Your task to perform on an android device: Open display settings Image 0: 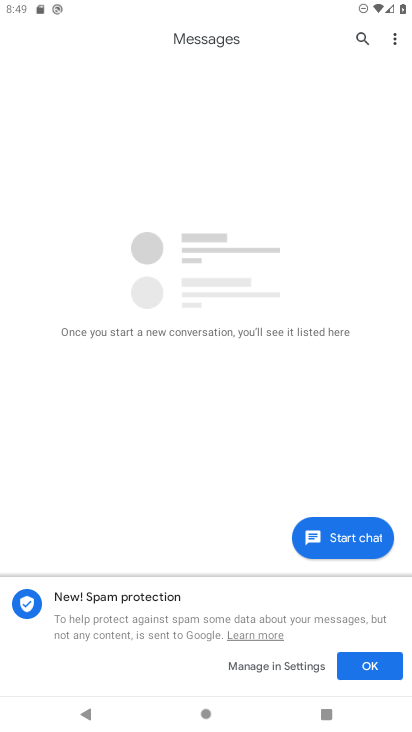
Step 0: press home button
Your task to perform on an android device: Open display settings Image 1: 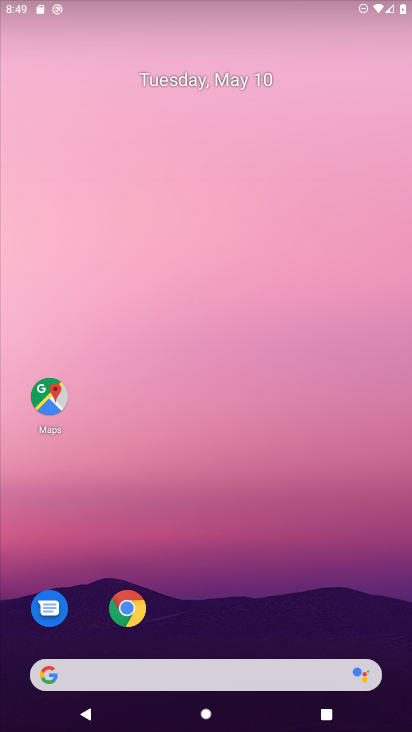
Step 1: drag from (318, 603) to (265, 67)
Your task to perform on an android device: Open display settings Image 2: 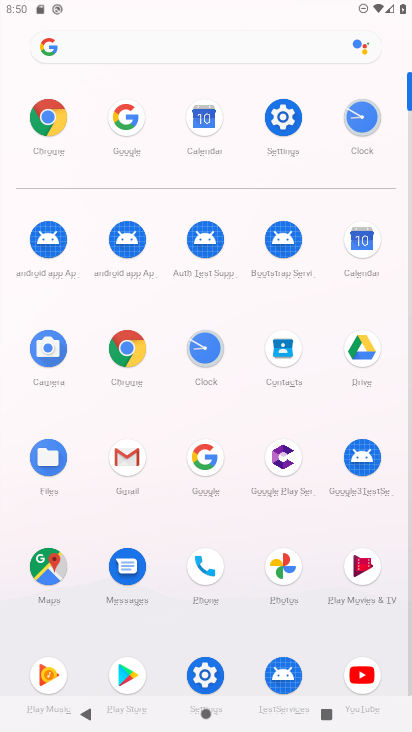
Step 2: click (218, 662)
Your task to perform on an android device: Open display settings Image 3: 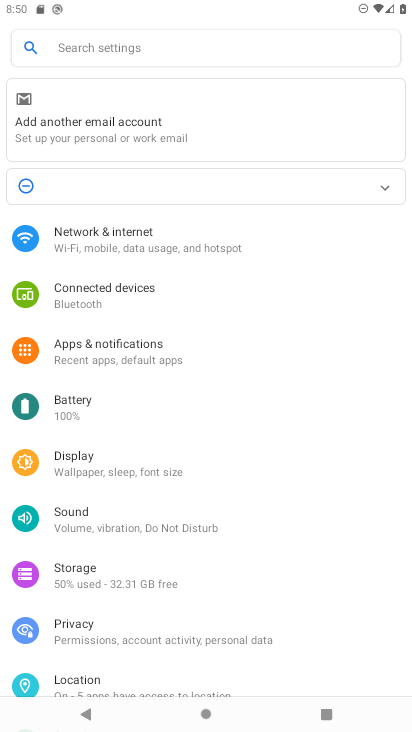
Step 3: click (114, 472)
Your task to perform on an android device: Open display settings Image 4: 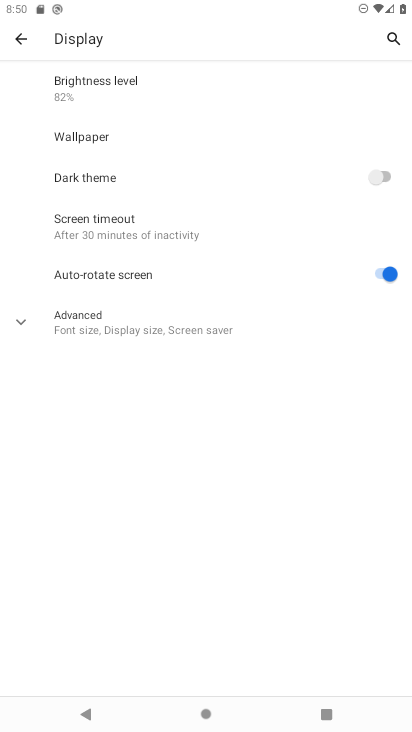
Step 4: task complete